Your task to perform on an android device: check the backup settings in the google photos Image 0: 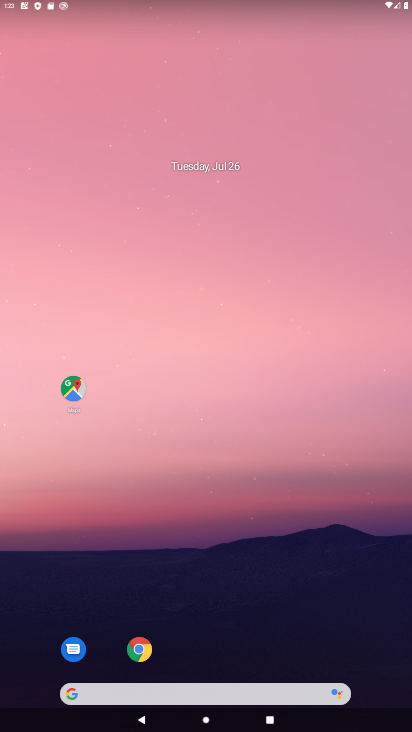
Step 0: press home button
Your task to perform on an android device: check the backup settings in the google photos Image 1: 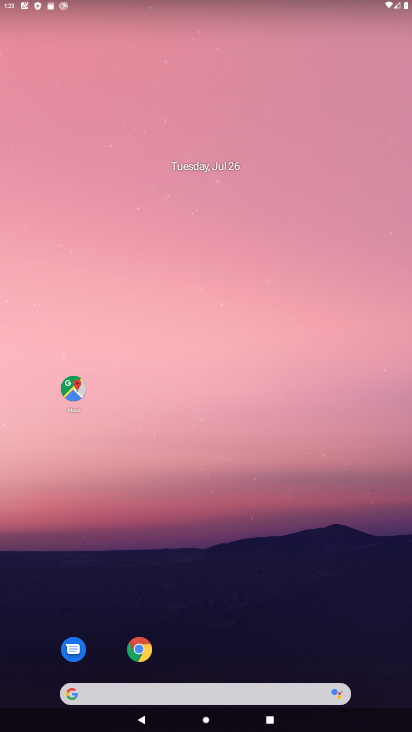
Step 1: drag from (228, 656) to (273, 3)
Your task to perform on an android device: check the backup settings in the google photos Image 2: 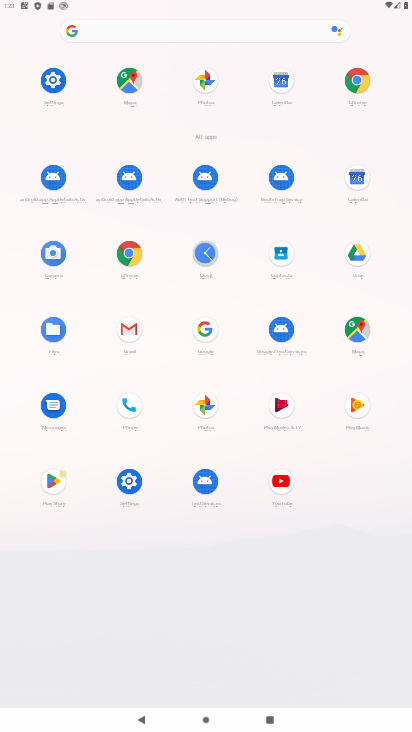
Step 2: click (201, 404)
Your task to perform on an android device: check the backup settings in the google photos Image 3: 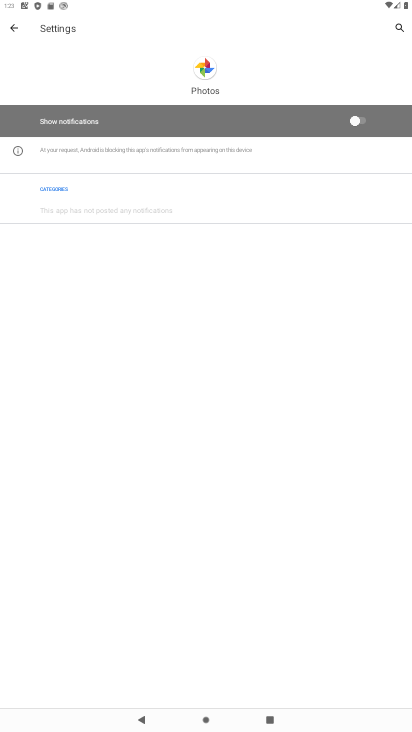
Step 3: click (17, 27)
Your task to perform on an android device: check the backup settings in the google photos Image 4: 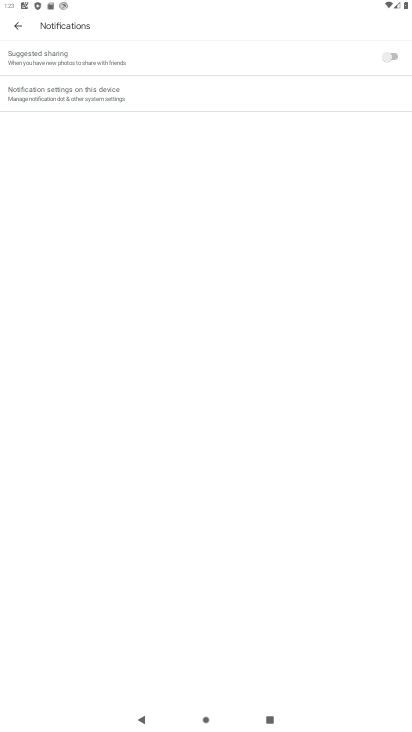
Step 4: click (17, 26)
Your task to perform on an android device: check the backup settings in the google photos Image 5: 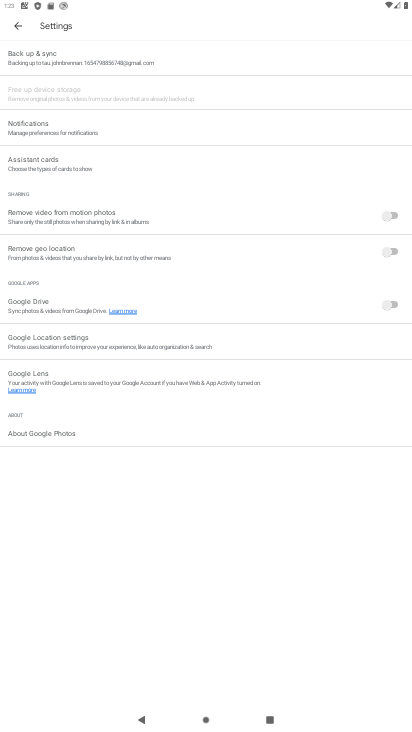
Step 5: click (94, 59)
Your task to perform on an android device: check the backup settings in the google photos Image 6: 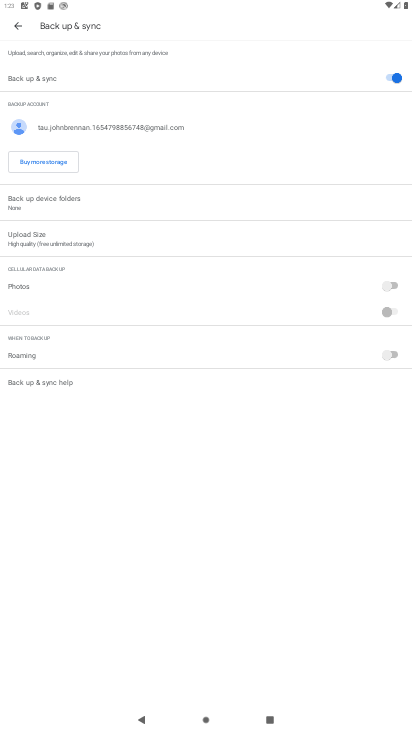
Step 6: task complete